Your task to perform on an android device: turn off improve location accuracy Image 0: 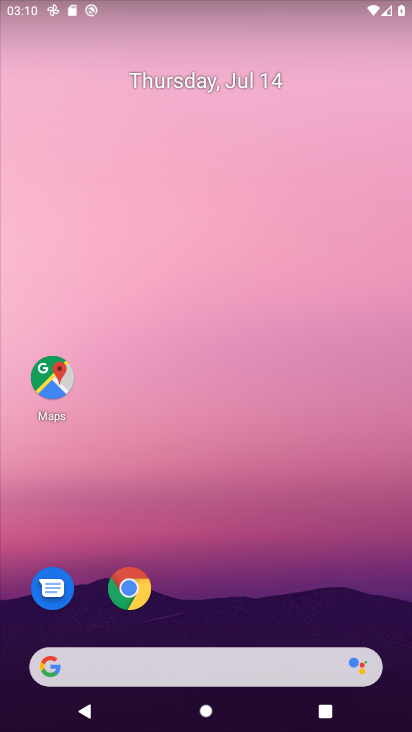
Step 0: drag from (298, 609) to (216, 165)
Your task to perform on an android device: turn off improve location accuracy Image 1: 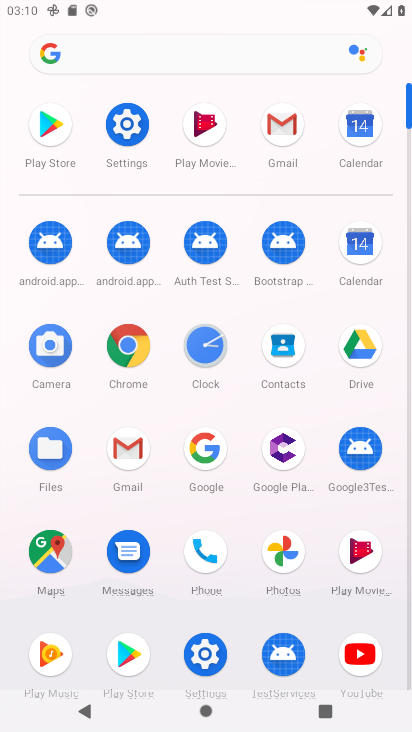
Step 1: click (112, 122)
Your task to perform on an android device: turn off improve location accuracy Image 2: 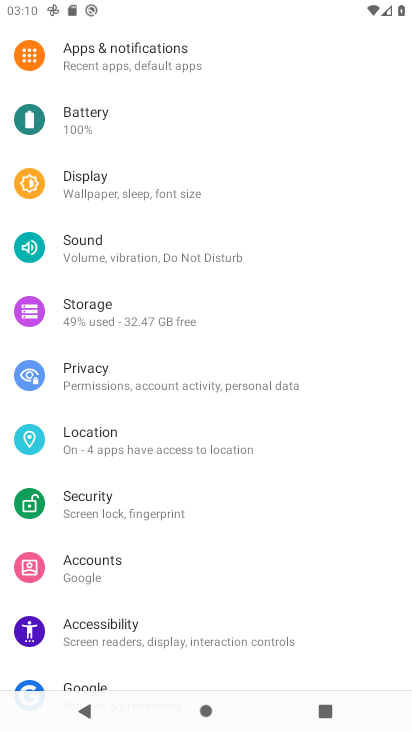
Step 2: click (178, 448)
Your task to perform on an android device: turn off improve location accuracy Image 3: 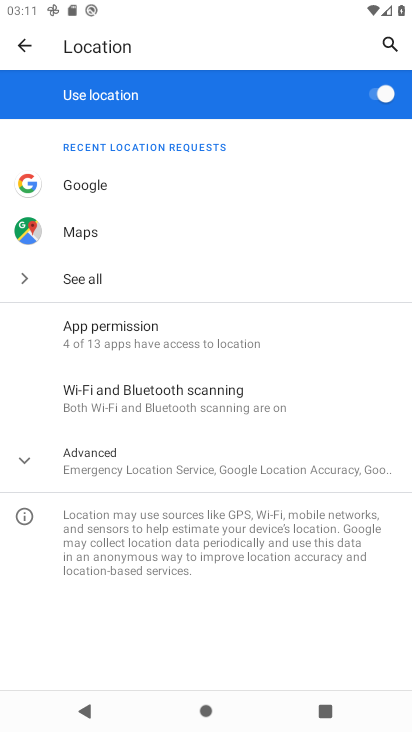
Step 3: click (247, 462)
Your task to perform on an android device: turn off improve location accuracy Image 4: 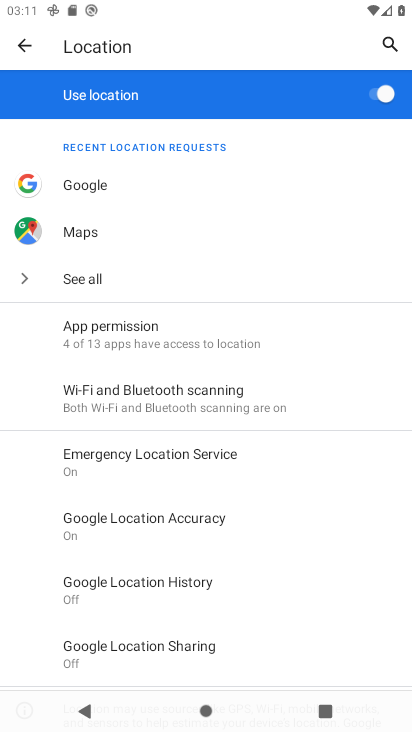
Step 4: click (232, 526)
Your task to perform on an android device: turn off improve location accuracy Image 5: 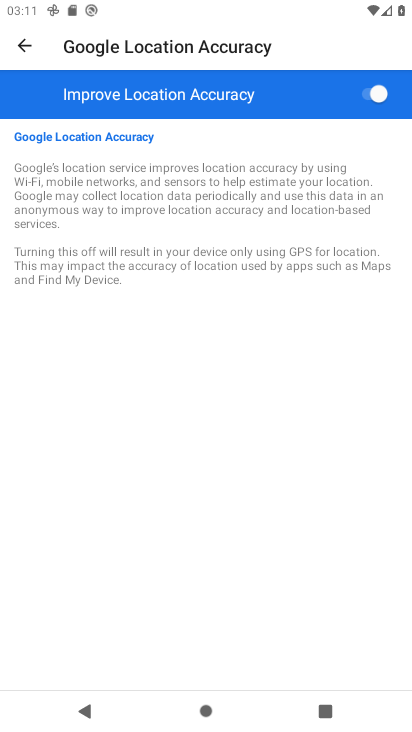
Step 5: click (367, 104)
Your task to perform on an android device: turn off improve location accuracy Image 6: 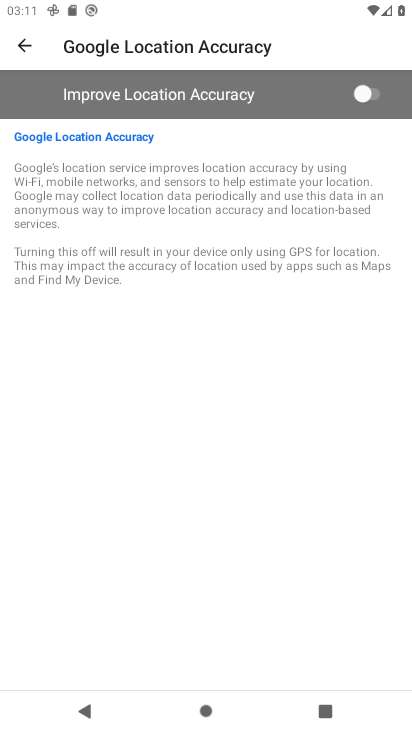
Step 6: task complete